Your task to perform on an android device: set an alarm Image 0: 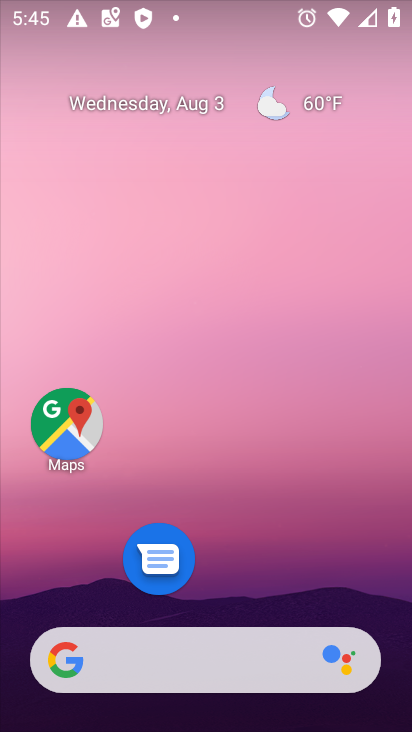
Step 0: drag from (234, 638) to (301, 123)
Your task to perform on an android device: set an alarm Image 1: 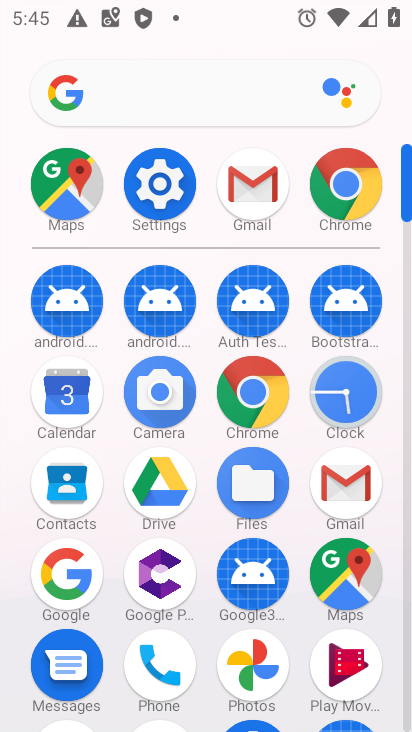
Step 1: click (338, 405)
Your task to perform on an android device: set an alarm Image 2: 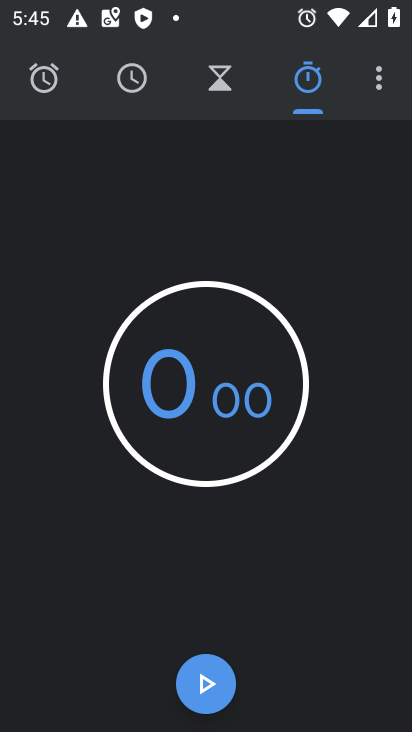
Step 2: click (49, 88)
Your task to perform on an android device: set an alarm Image 3: 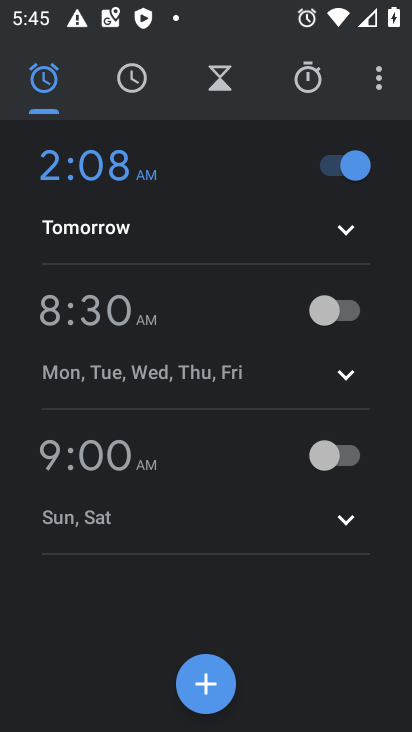
Step 3: click (200, 679)
Your task to perform on an android device: set an alarm Image 4: 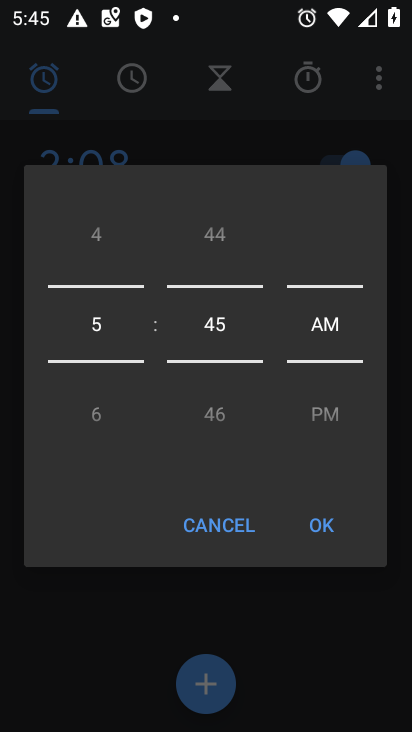
Step 4: drag from (106, 320) to (115, 441)
Your task to perform on an android device: set an alarm Image 5: 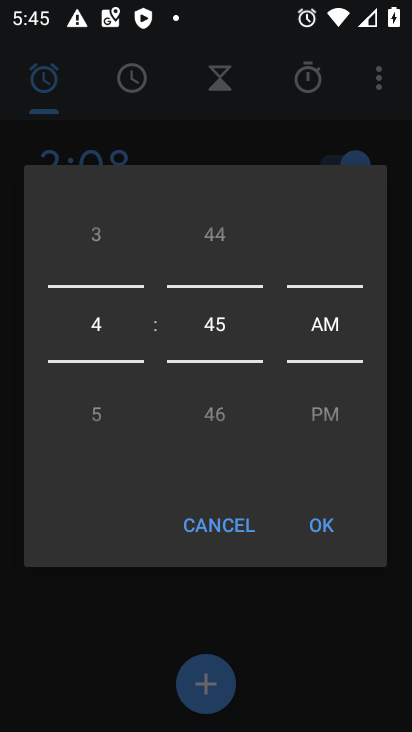
Step 5: drag from (224, 310) to (234, 432)
Your task to perform on an android device: set an alarm Image 6: 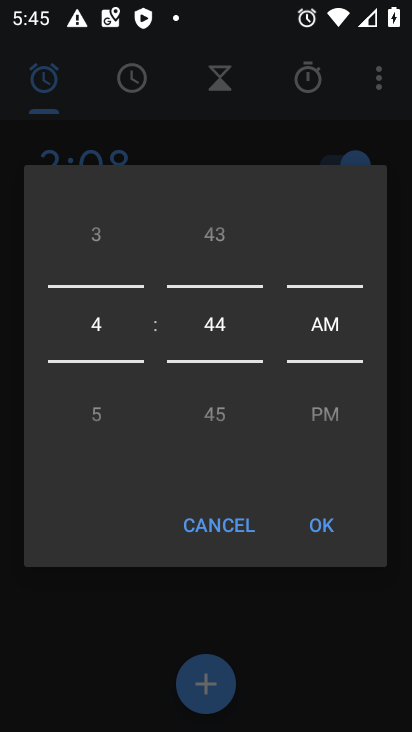
Step 6: drag from (218, 304) to (221, 444)
Your task to perform on an android device: set an alarm Image 7: 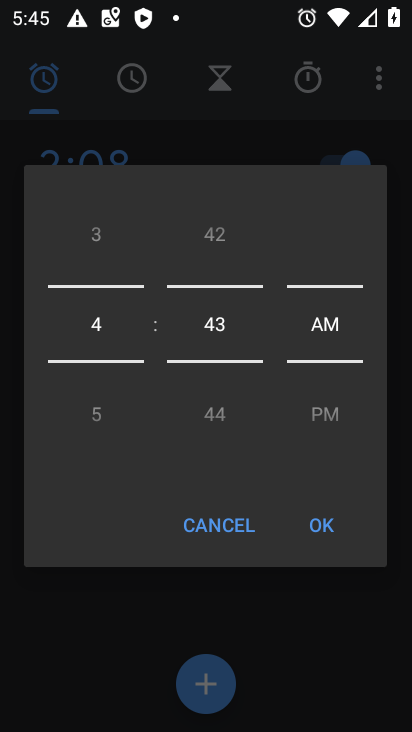
Step 7: drag from (213, 290) to (222, 474)
Your task to perform on an android device: set an alarm Image 8: 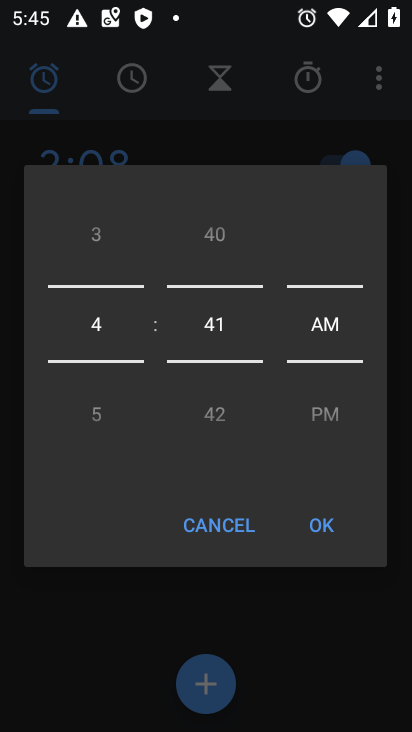
Step 8: drag from (202, 318) to (212, 449)
Your task to perform on an android device: set an alarm Image 9: 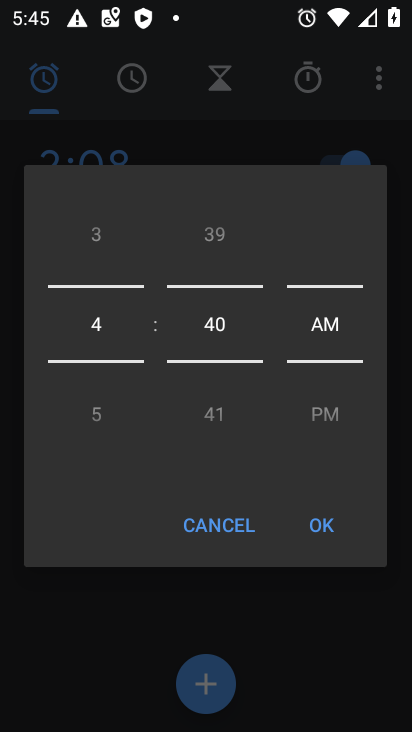
Step 9: drag from (340, 347) to (352, 419)
Your task to perform on an android device: set an alarm Image 10: 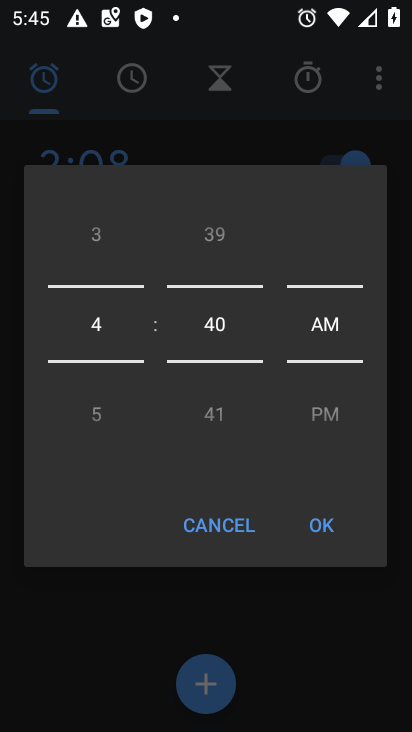
Step 10: drag from (213, 286) to (217, 506)
Your task to perform on an android device: set an alarm Image 11: 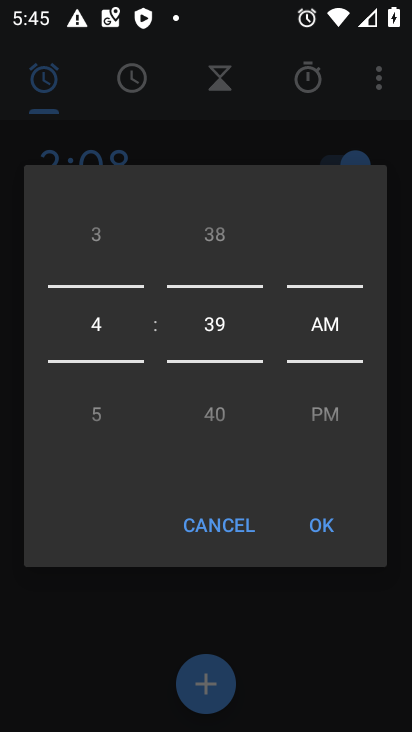
Step 11: drag from (212, 315) to (231, 496)
Your task to perform on an android device: set an alarm Image 12: 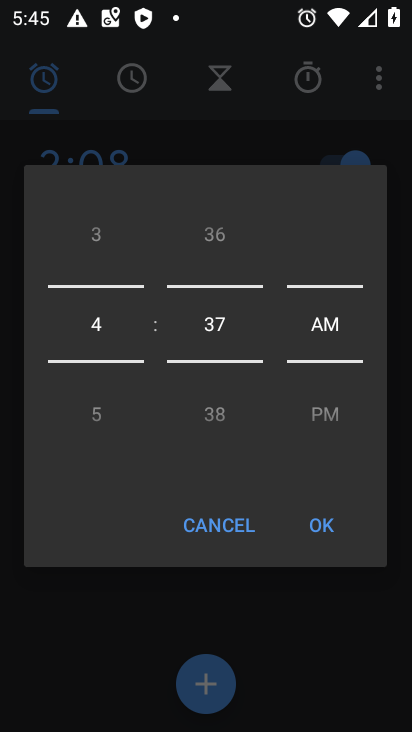
Step 12: drag from (220, 325) to (238, 469)
Your task to perform on an android device: set an alarm Image 13: 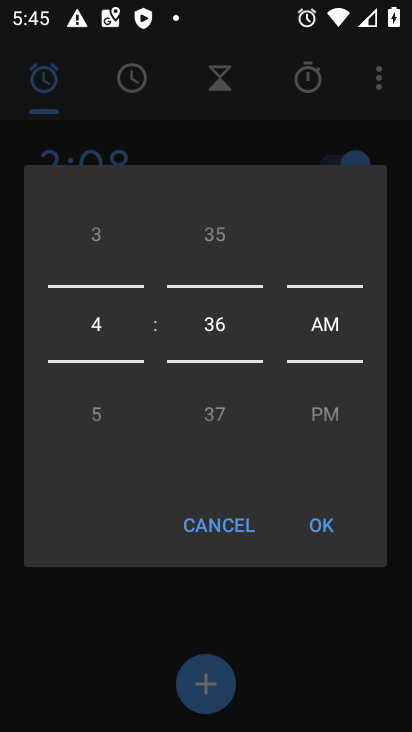
Step 13: drag from (215, 308) to (233, 438)
Your task to perform on an android device: set an alarm Image 14: 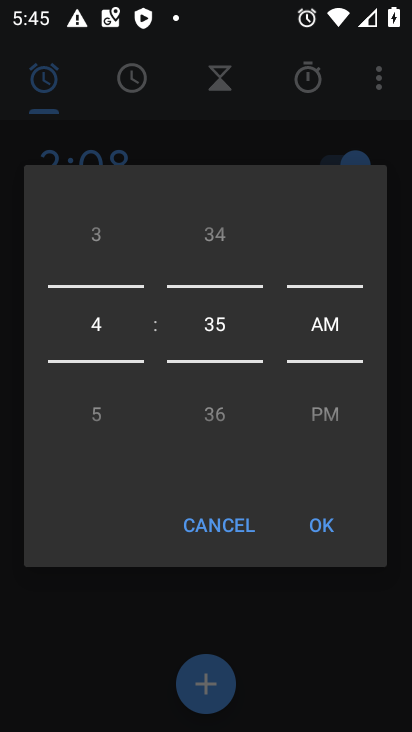
Step 14: drag from (206, 309) to (224, 442)
Your task to perform on an android device: set an alarm Image 15: 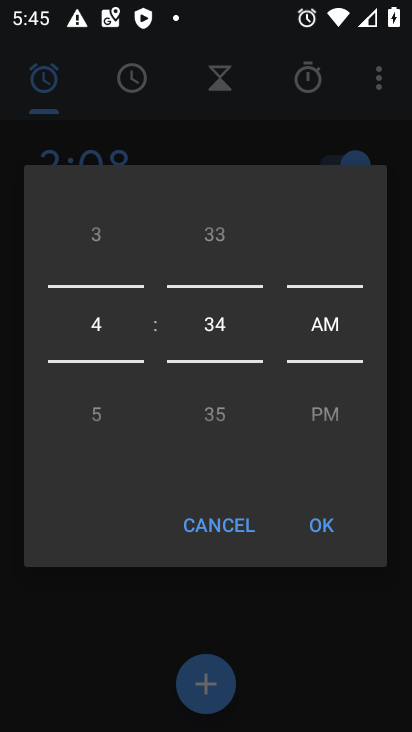
Step 15: drag from (216, 299) to (228, 440)
Your task to perform on an android device: set an alarm Image 16: 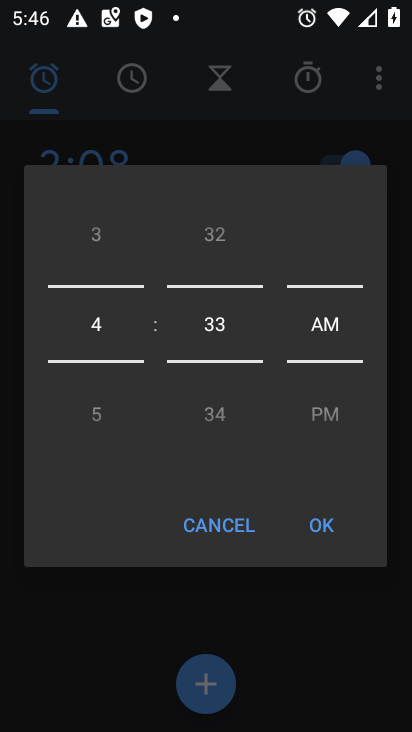
Step 16: drag from (204, 308) to (230, 457)
Your task to perform on an android device: set an alarm Image 17: 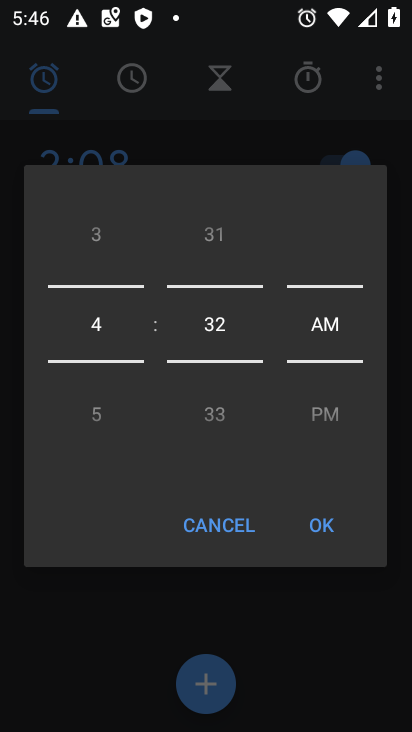
Step 17: drag from (205, 298) to (227, 435)
Your task to perform on an android device: set an alarm Image 18: 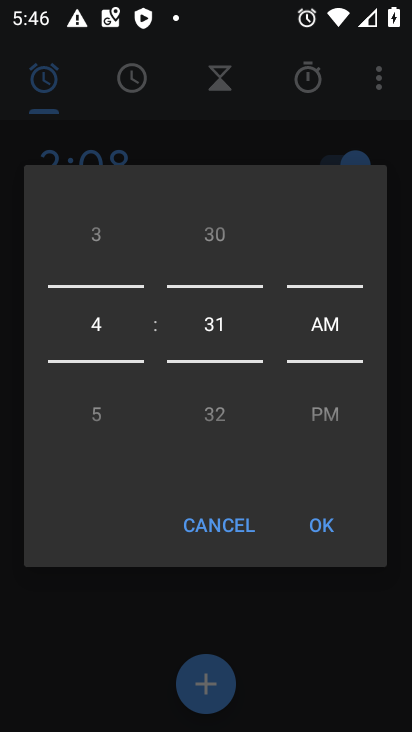
Step 18: drag from (205, 314) to (231, 466)
Your task to perform on an android device: set an alarm Image 19: 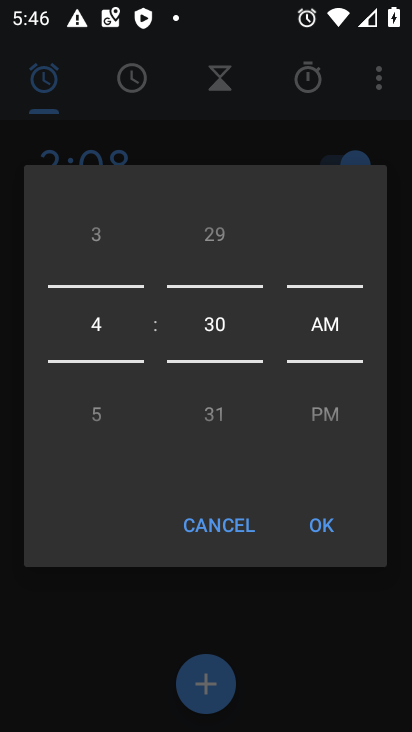
Step 19: drag from (200, 318) to (237, 479)
Your task to perform on an android device: set an alarm Image 20: 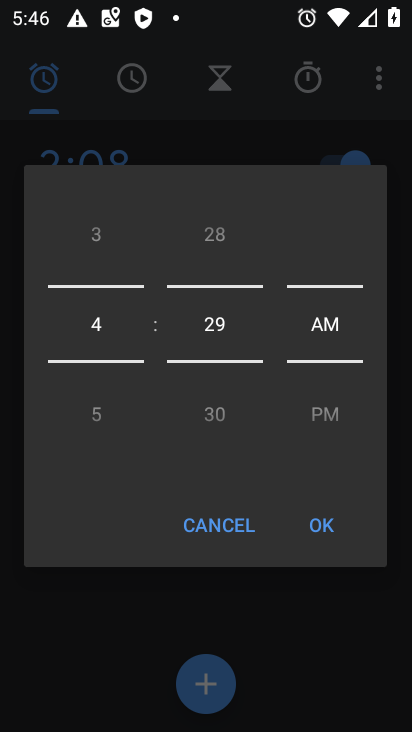
Step 20: drag from (201, 305) to (233, 476)
Your task to perform on an android device: set an alarm Image 21: 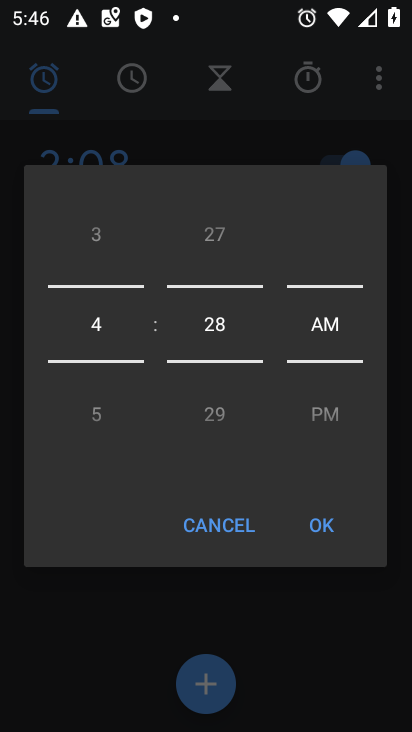
Step 21: drag from (224, 310) to (245, 468)
Your task to perform on an android device: set an alarm Image 22: 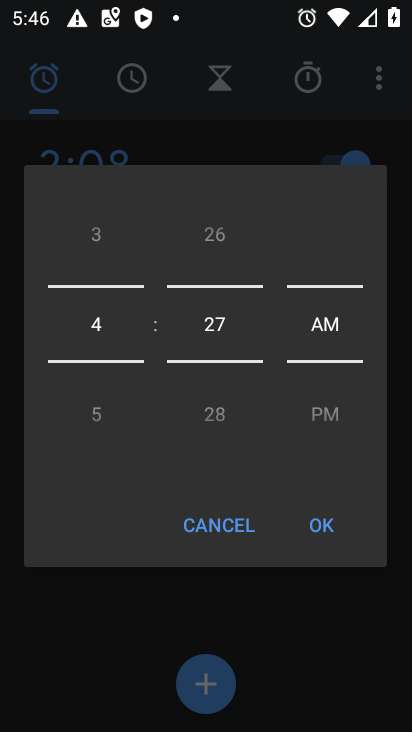
Step 22: drag from (218, 304) to (240, 449)
Your task to perform on an android device: set an alarm Image 23: 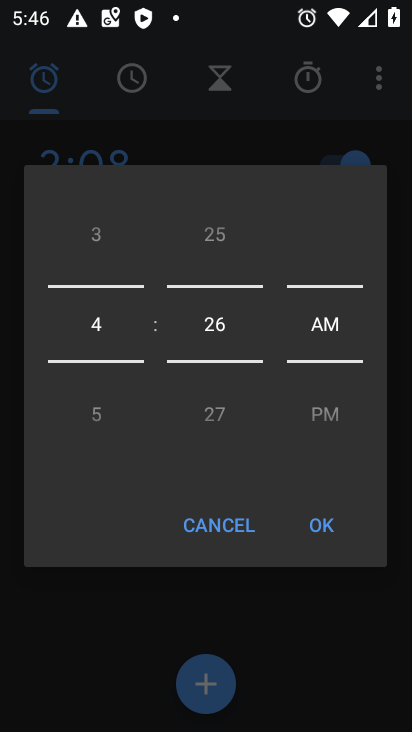
Step 23: drag from (214, 300) to (243, 442)
Your task to perform on an android device: set an alarm Image 24: 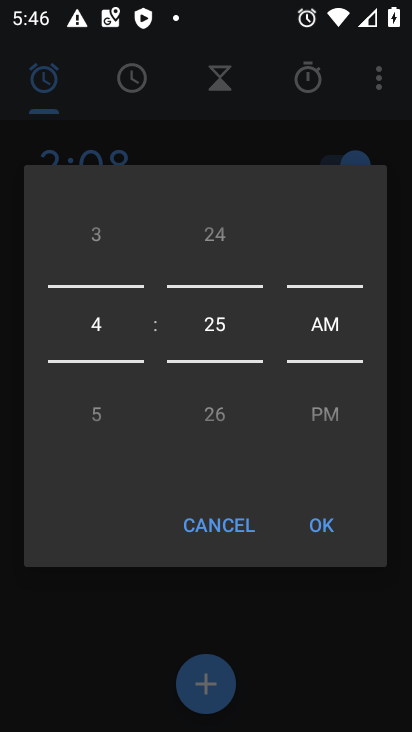
Step 24: drag from (211, 307) to (243, 460)
Your task to perform on an android device: set an alarm Image 25: 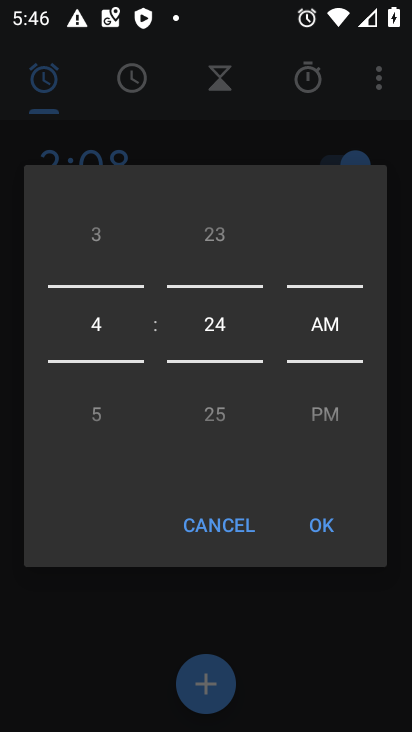
Step 25: drag from (236, 310) to (246, 462)
Your task to perform on an android device: set an alarm Image 26: 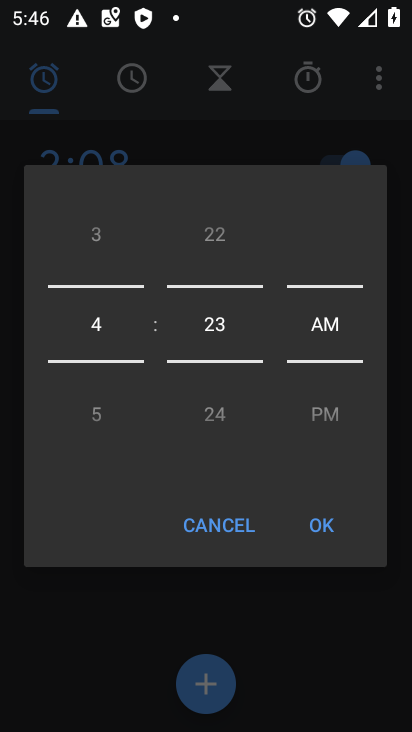
Step 26: drag from (222, 302) to (232, 463)
Your task to perform on an android device: set an alarm Image 27: 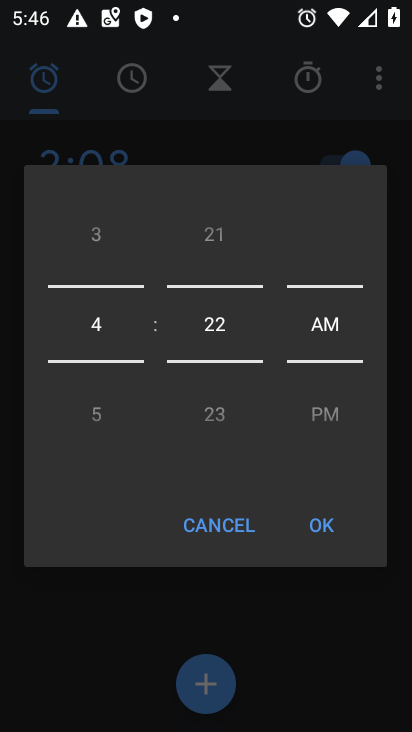
Step 27: drag from (231, 311) to (232, 476)
Your task to perform on an android device: set an alarm Image 28: 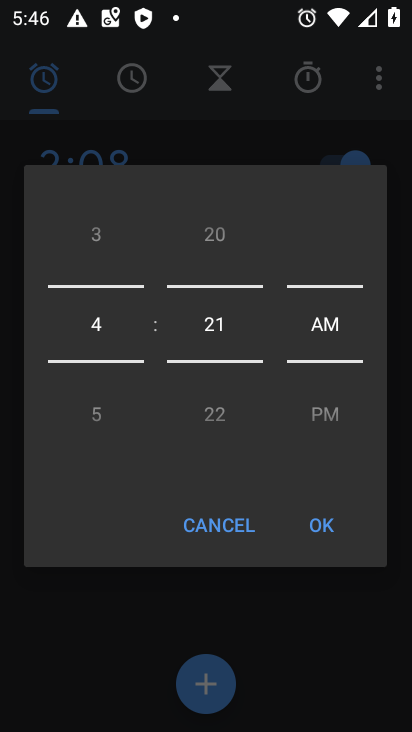
Step 28: drag from (208, 308) to (217, 440)
Your task to perform on an android device: set an alarm Image 29: 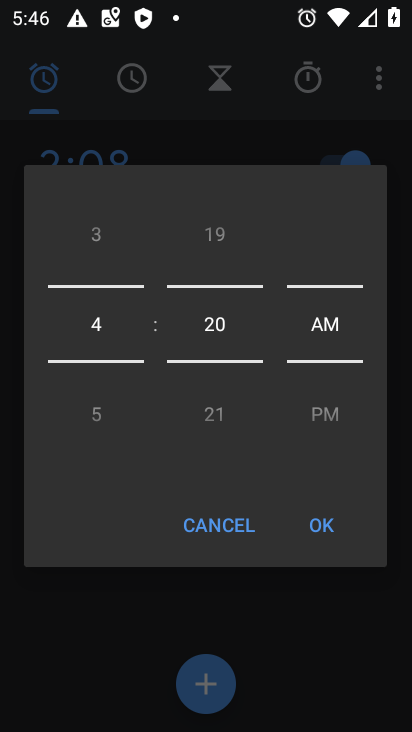
Step 29: drag from (217, 305) to (226, 453)
Your task to perform on an android device: set an alarm Image 30: 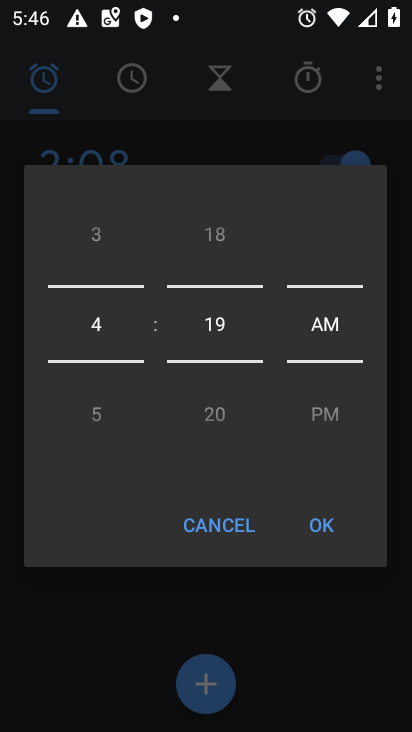
Step 30: drag from (207, 315) to (213, 475)
Your task to perform on an android device: set an alarm Image 31: 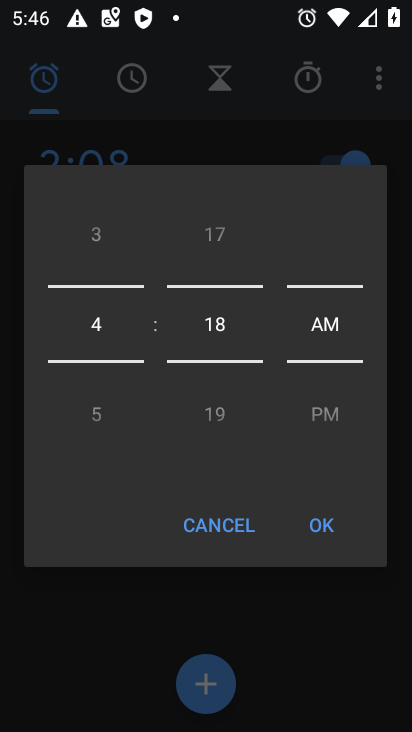
Step 31: drag from (218, 321) to (225, 477)
Your task to perform on an android device: set an alarm Image 32: 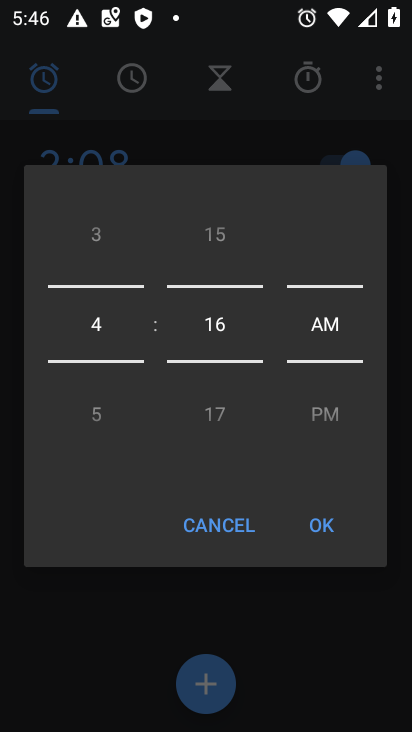
Step 32: drag from (202, 334) to (216, 448)
Your task to perform on an android device: set an alarm Image 33: 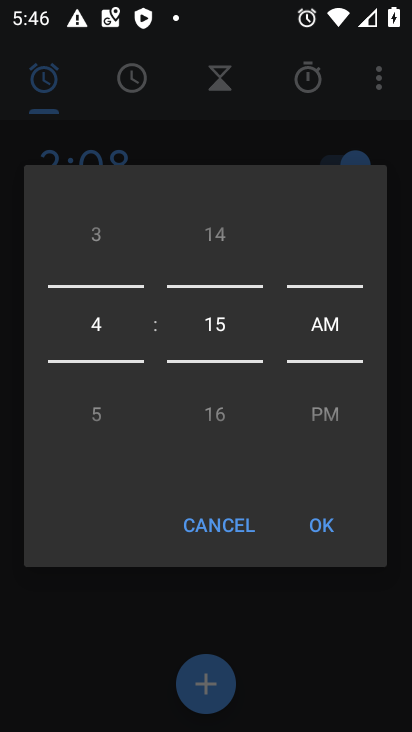
Step 33: drag from (211, 313) to (221, 446)
Your task to perform on an android device: set an alarm Image 34: 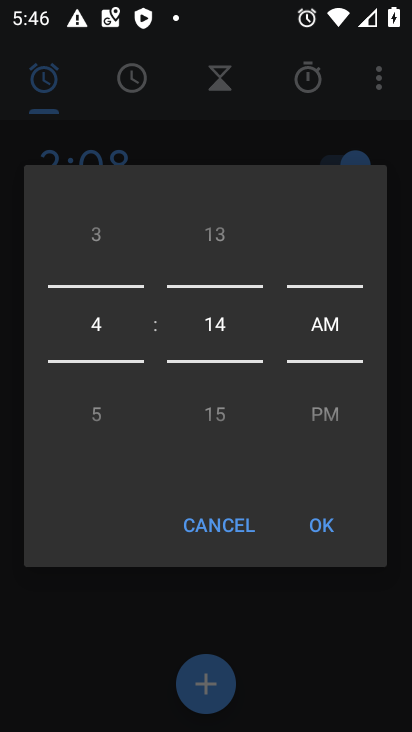
Step 34: drag from (207, 307) to (215, 469)
Your task to perform on an android device: set an alarm Image 35: 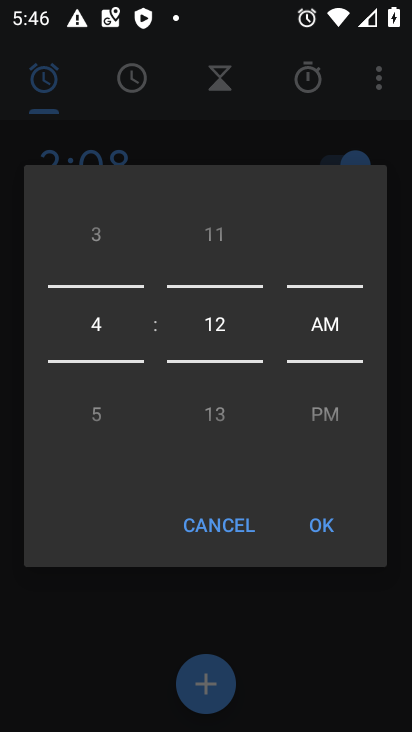
Step 35: drag from (208, 320) to (225, 447)
Your task to perform on an android device: set an alarm Image 36: 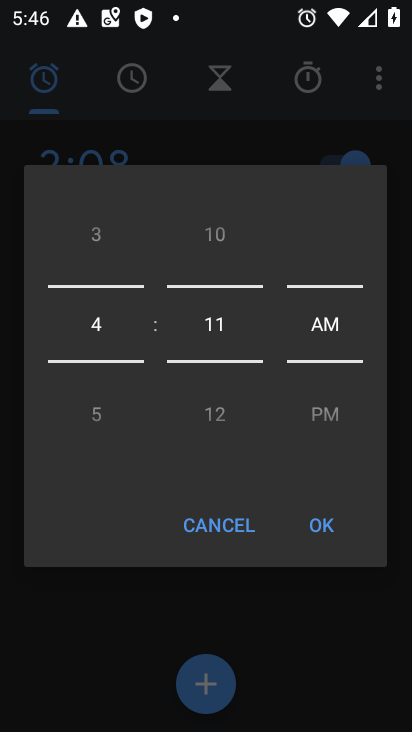
Step 36: drag from (206, 317) to (229, 473)
Your task to perform on an android device: set an alarm Image 37: 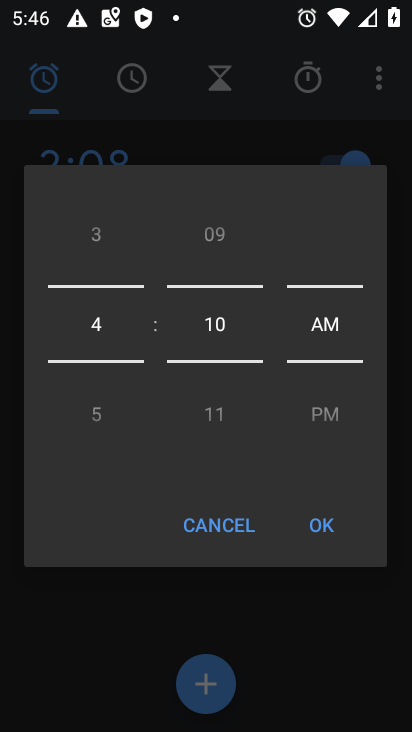
Step 37: drag from (218, 364) to (228, 432)
Your task to perform on an android device: set an alarm Image 38: 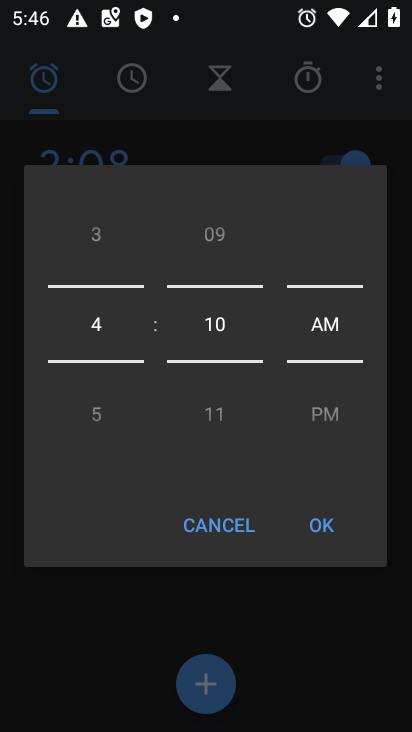
Step 38: drag from (218, 294) to (230, 450)
Your task to perform on an android device: set an alarm Image 39: 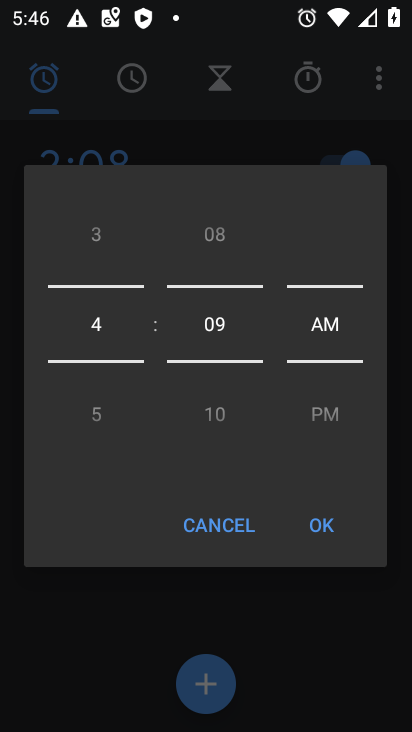
Step 39: drag from (211, 328) to (221, 483)
Your task to perform on an android device: set an alarm Image 40: 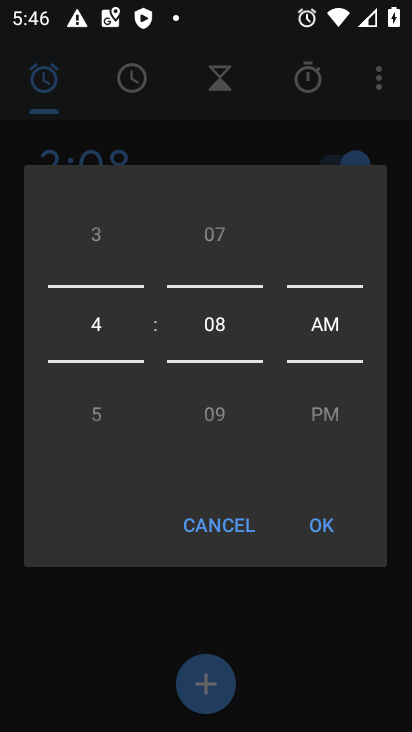
Step 40: drag from (213, 317) to (225, 463)
Your task to perform on an android device: set an alarm Image 41: 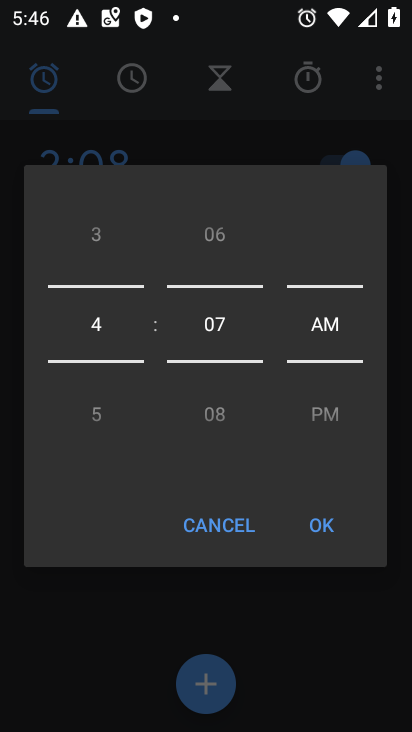
Step 41: drag from (209, 305) to (230, 447)
Your task to perform on an android device: set an alarm Image 42: 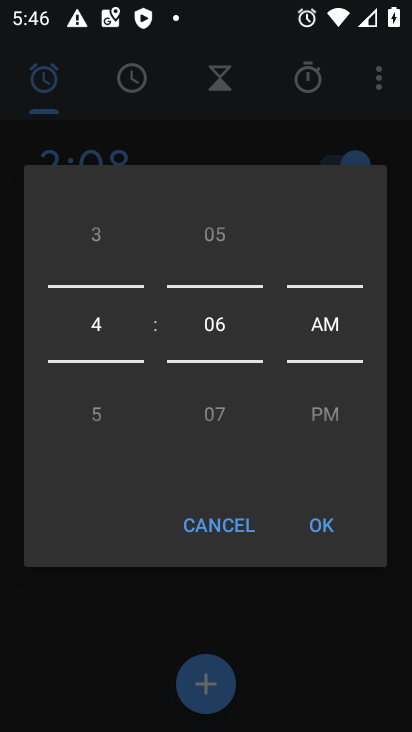
Step 42: drag from (219, 310) to (245, 463)
Your task to perform on an android device: set an alarm Image 43: 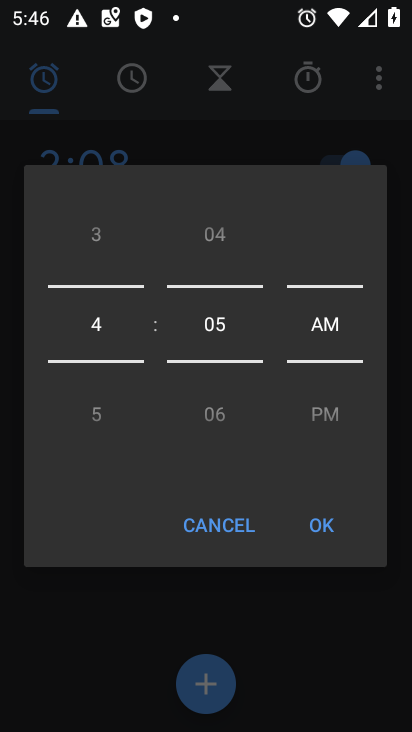
Step 43: drag from (210, 317) to (217, 472)
Your task to perform on an android device: set an alarm Image 44: 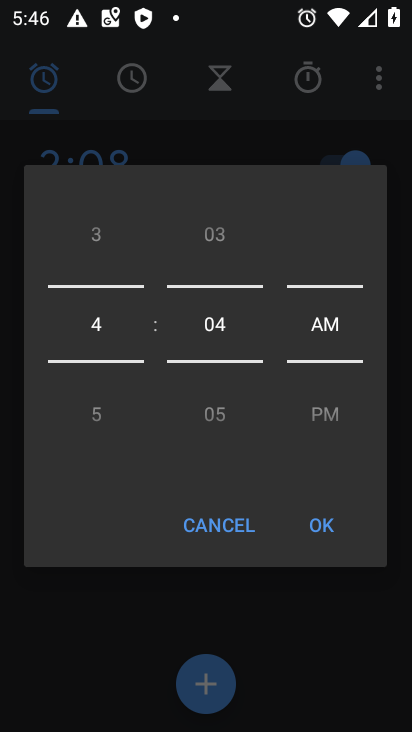
Step 44: drag from (204, 315) to (213, 477)
Your task to perform on an android device: set an alarm Image 45: 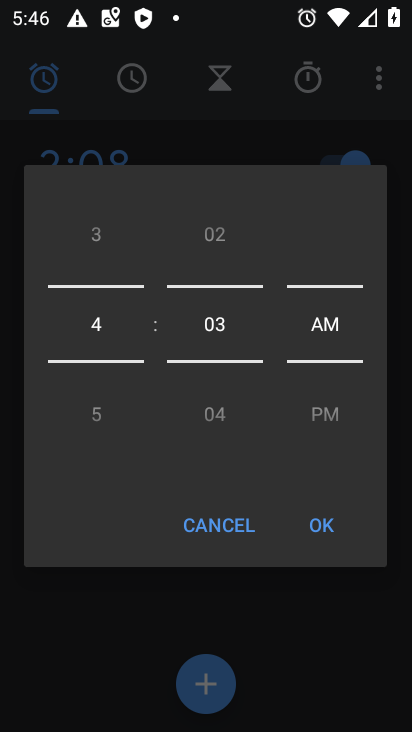
Step 45: drag from (200, 315) to (218, 455)
Your task to perform on an android device: set an alarm Image 46: 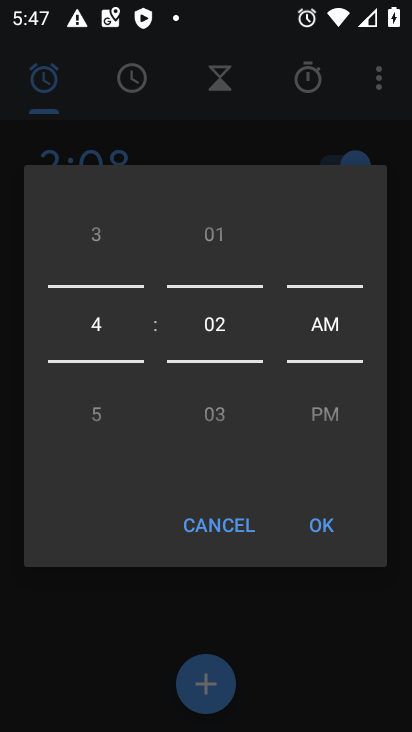
Step 46: drag from (210, 306) to (225, 421)
Your task to perform on an android device: set an alarm Image 47: 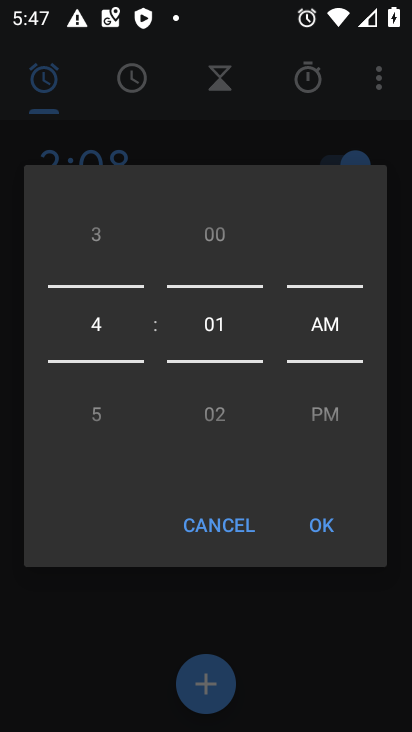
Step 47: drag from (207, 317) to (228, 429)
Your task to perform on an android device: set an alarm Image 48: 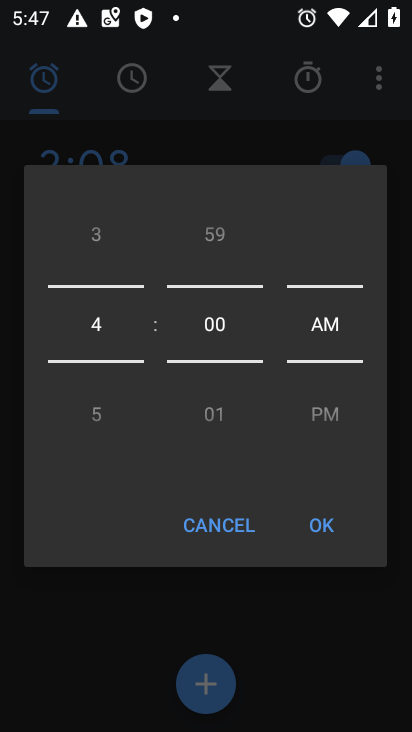
Step 48: click (334, 534)
Your task to perform on an android device: set an alarm Image 49: 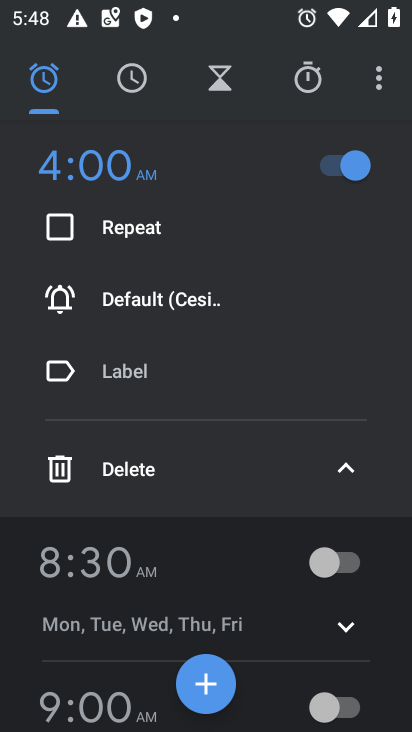
Step 49: task complete